Your task to perform on an android device: Open Yahoo.com Image 0: 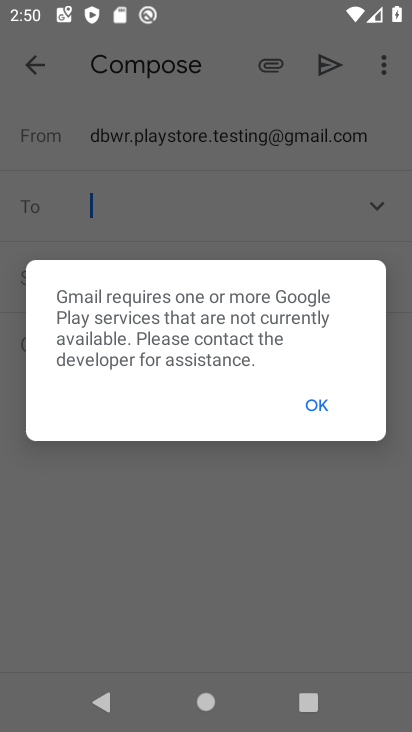
Step 0: press home button
Your task to perform on an android device: Open Yahoo.com Image 1: 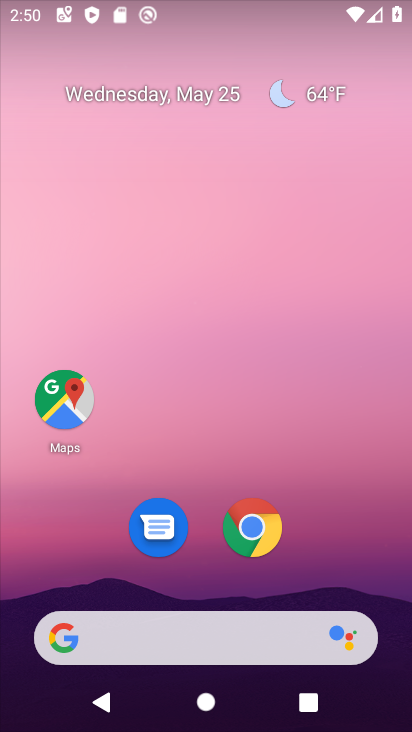
Step 1: click (256, 523)
Your task to perform on an android device: Open Yahoo.com Image 2: 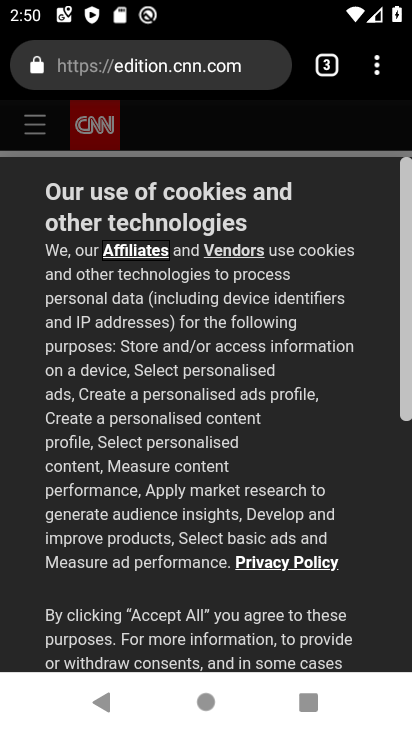
Step 2: click (315, 80)
Your task to perform on an android device: Open Yahoo.com Image 3: 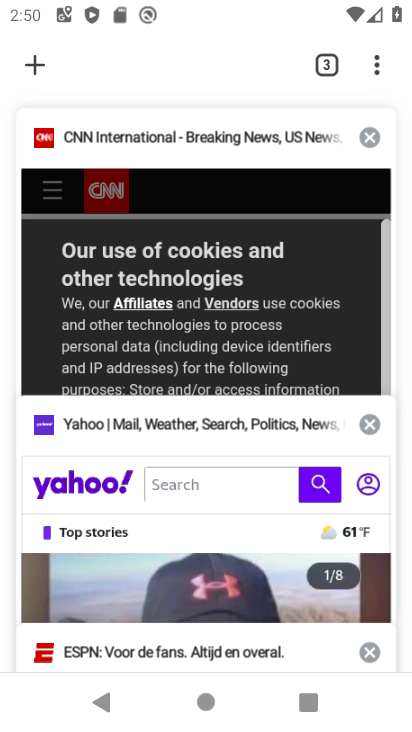
Step 3: click (103, 455)
Your task to perform on an android device: Open Yahoo.com Image 4: 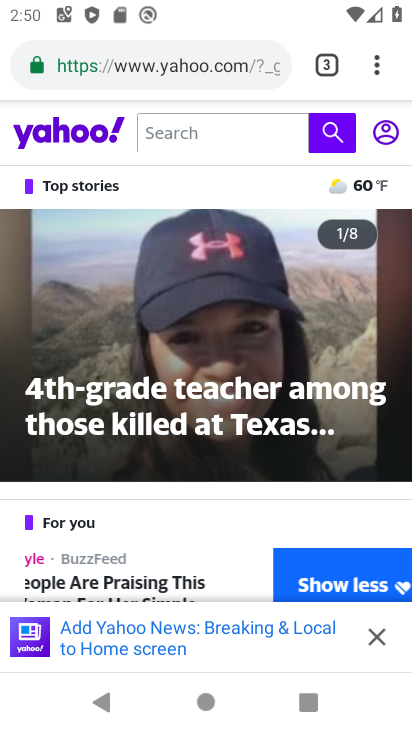
Step 4: task complete